Your task to perform on an android device: create a new album in the google photos Image 0: 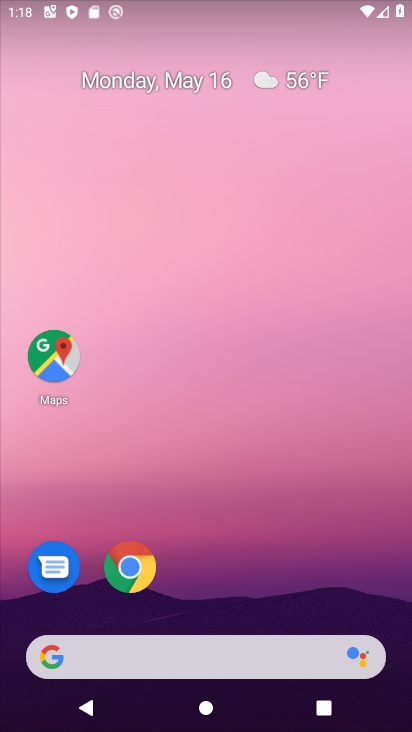
Step 0: drag from (162, 641) to (238, 116)
Your task to perform on an android device: create a new album in the google photos Image 1: 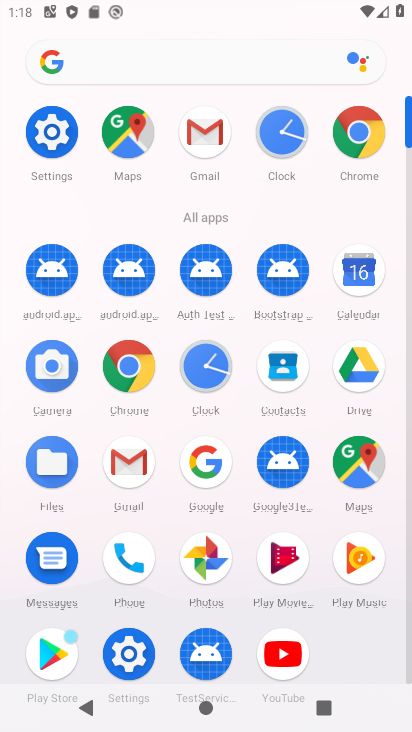
Step 1: drag from (177, 561) to (221, 389)
Your task to perform on an android device: create a new album in the google photos Image 2: 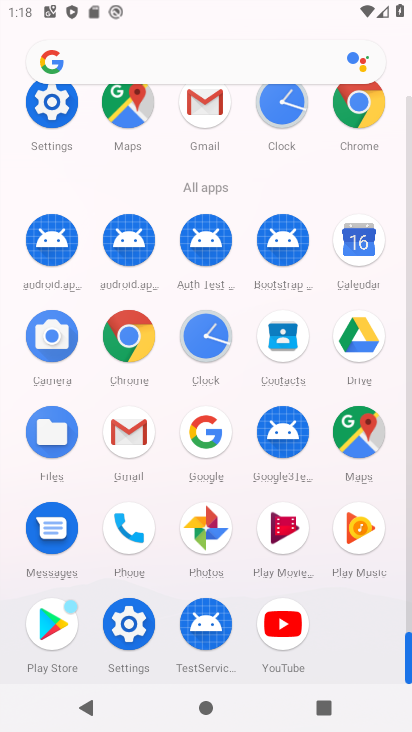
Step 2: click (213, 530)
Your task to perform on an android device: create a new album in the google photos Image 3: 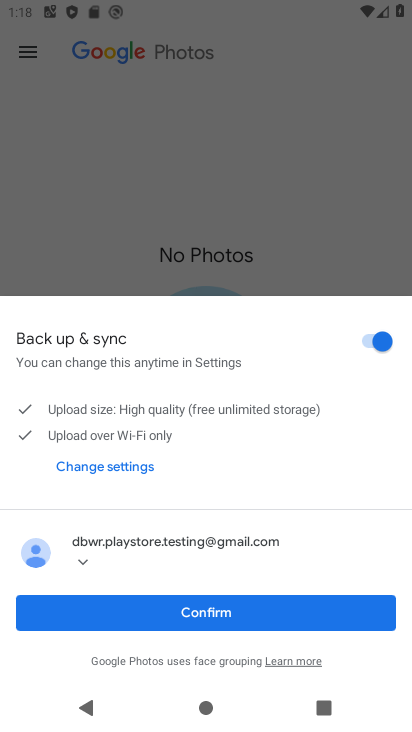
Step 3: click (229, 620)
Your task to perform on an android device: create a new album in the google photos Image 4: 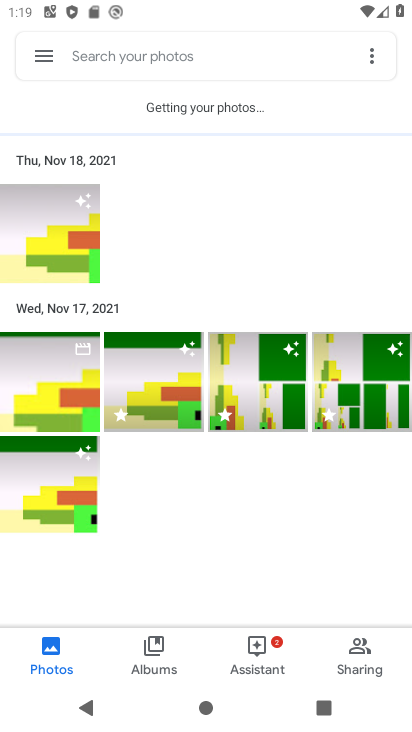
Step 4: click (73, 227)
Your task to perform on an android device: create a new album in the google photos Image 5: 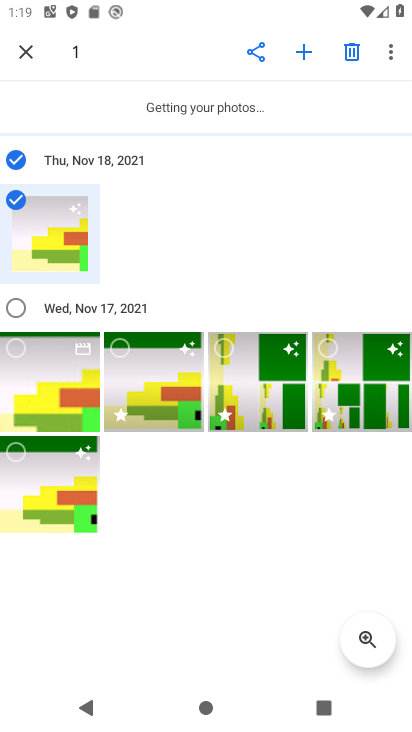
Step 5: click (12, 310)
Your task to perform on an android device: create a new album in the google photos Image 6: 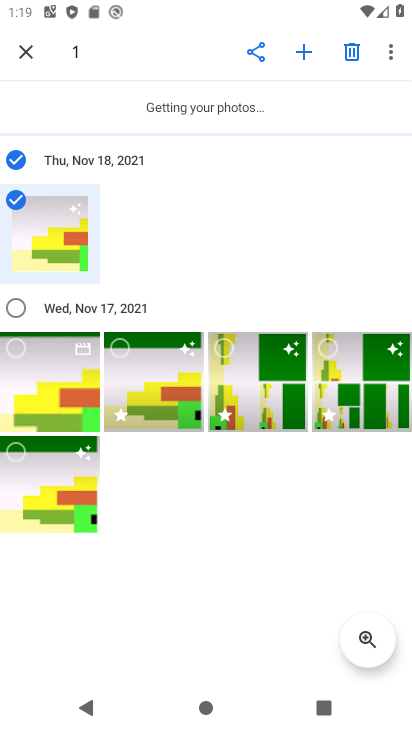
Step 6: click (14, 311)
Your task to perform on an android device: create a new album in the google photos Image 7: 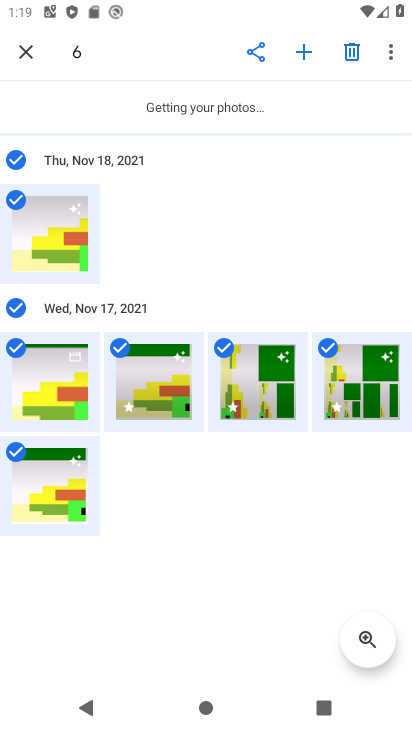
Step 7: click (303, 66)
Your task to perform on an android device: create a new album in the google photos Image 8: 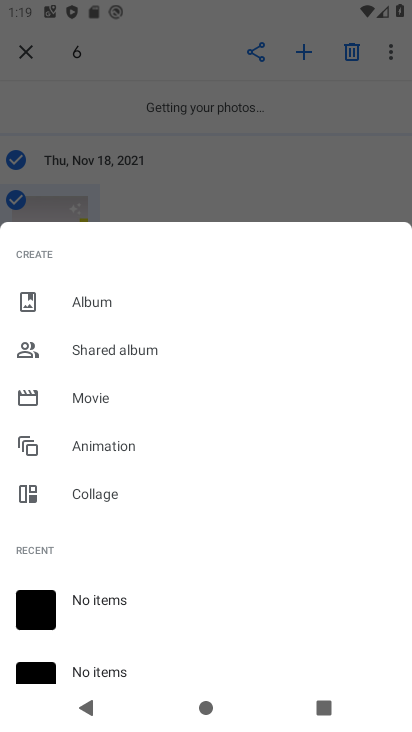
Step 8: click (125, 303)
Your task to perform on an android device: create a new album in the google photos Image 9: 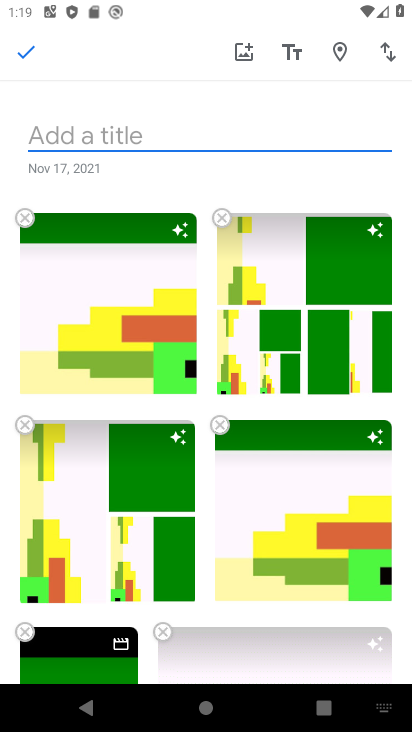
Step 9: type "popopopop"
Your task to perform on an android device: create a new album in the google photos Image 10: 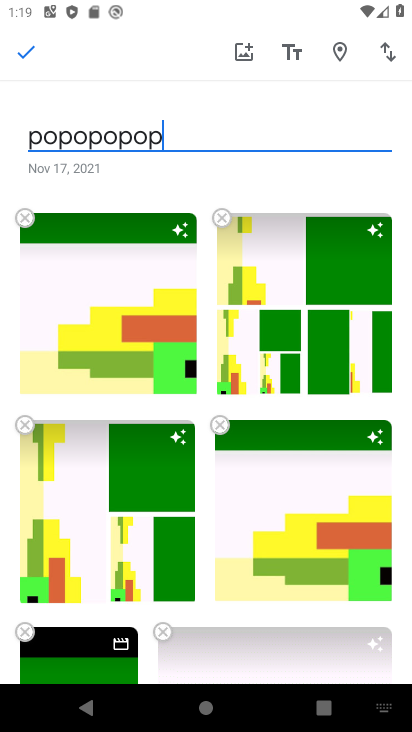
Step 10: click (21, 49)
Your task to perform on an android device: create a new album in the google photos Image 11: 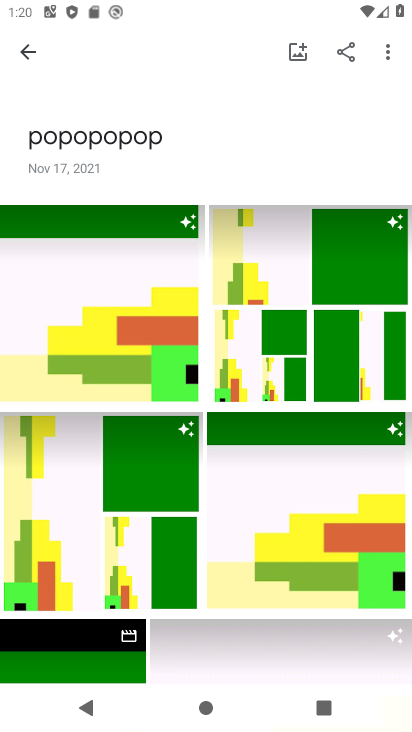
Step 11: task complete